Your task to perform on an android device: toggle data saver in the chrome app Image 0: 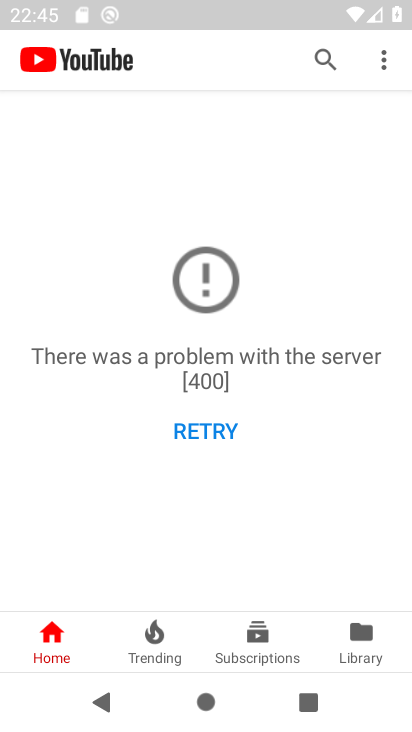
Step 0: press home button
Your task to perform on an android device: toggle data saver in the chrome app Image 1: 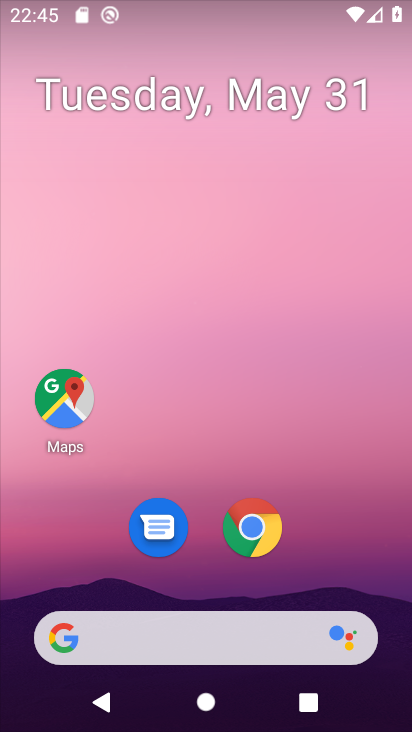
Step 1: click (259, 542)
Your task to perform on an android device: toggle data saver in the chrome app Image 2: 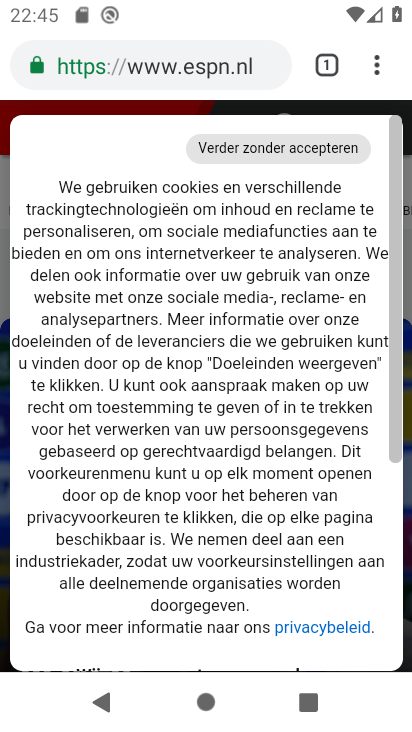
Step 2: click (368, 52)
Your task to perform on an android device: toggle data saver in the chrome app Image 3: 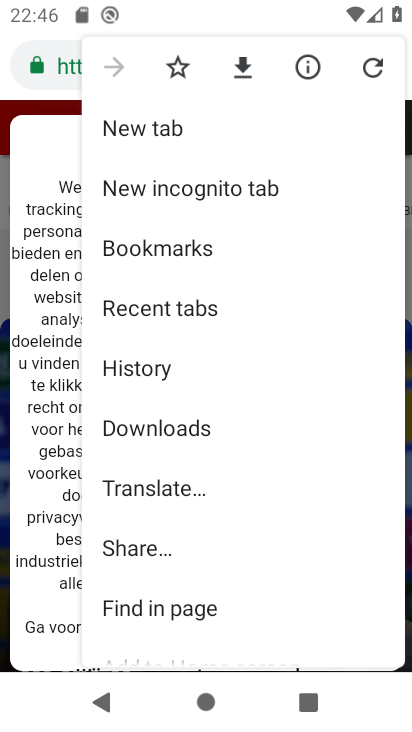
Step 3: drag from (271, 549) to (263, 183)
Your task to perform on an android device: toggle data saver in the chrome app Image 4: 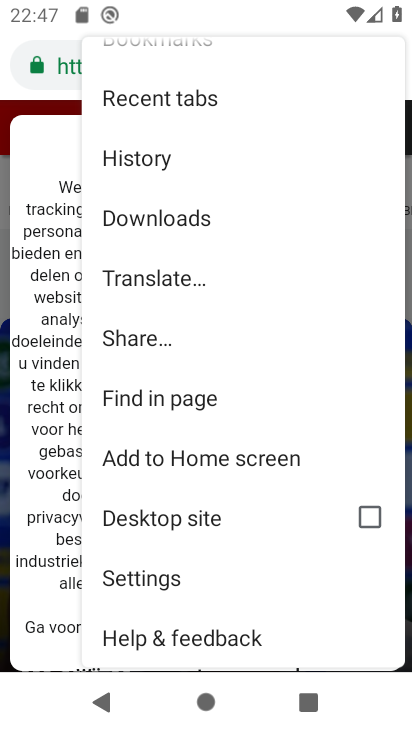
Step 4: drag from (225, 596) to (246, 393)
Your task to perform on an android device: toggle data saver in the chrome app Image 5: 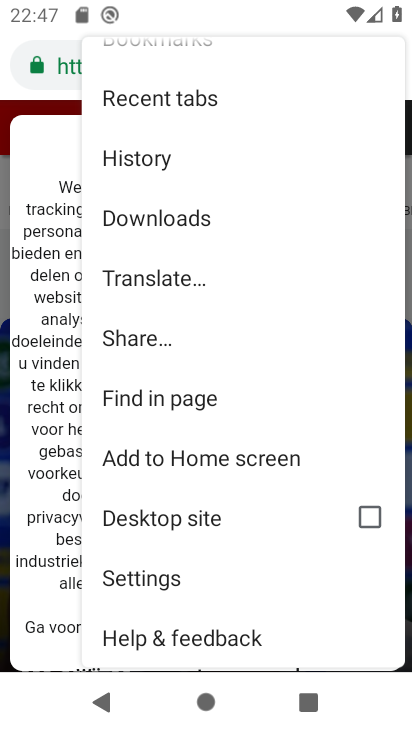
Step 5: click (179, 581)
Your task to perform on an android device: toggle data saver in the chrome app Image 6: 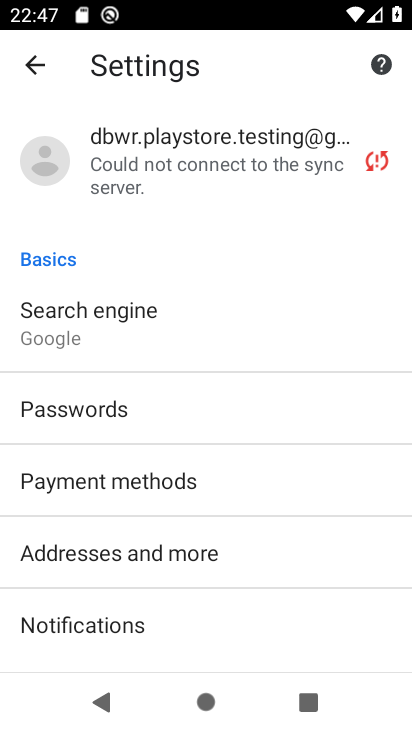
Step 6: drag from (158, 561) to (192, 201)
Your task to perform on an android device: toggle data saver in the chrome app Image 7: 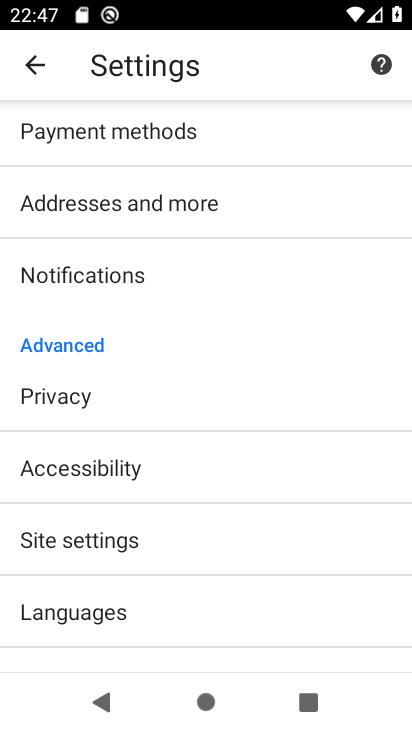
Step 7: drag from (192, 505) to (240, 170)
Your task to perform on an android device: toggle data saver in the chrome app Image 8: 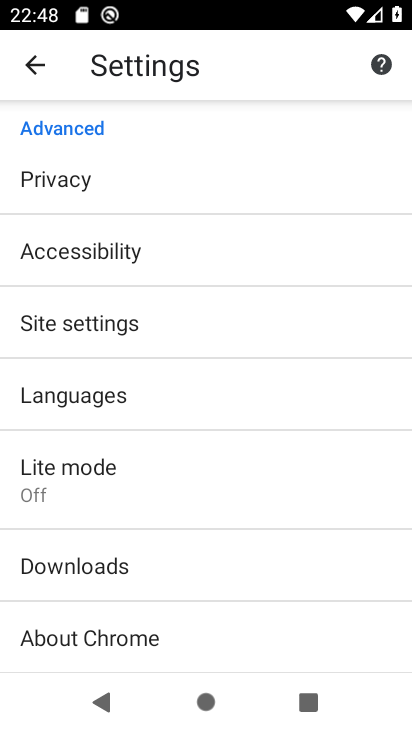
Step 8: click (166, 482)
Your task to perform on an android device: toggle data saver in the chrome app Image 9: 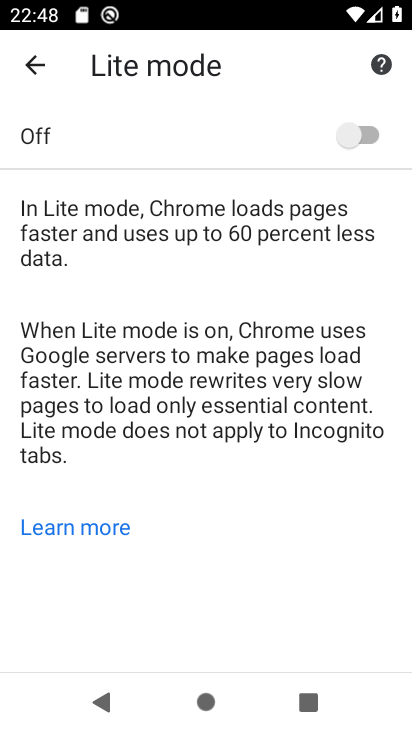
Step 9: click (358, 134)
Your task to perform on an android device: toggle data saver in the chrome app Image 10: 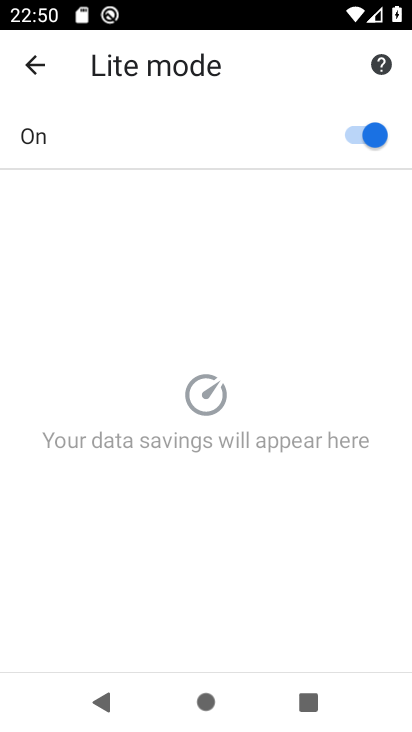
Step 10: task complete